Your task to perform on an android device: turn on sleep mode Image 0: 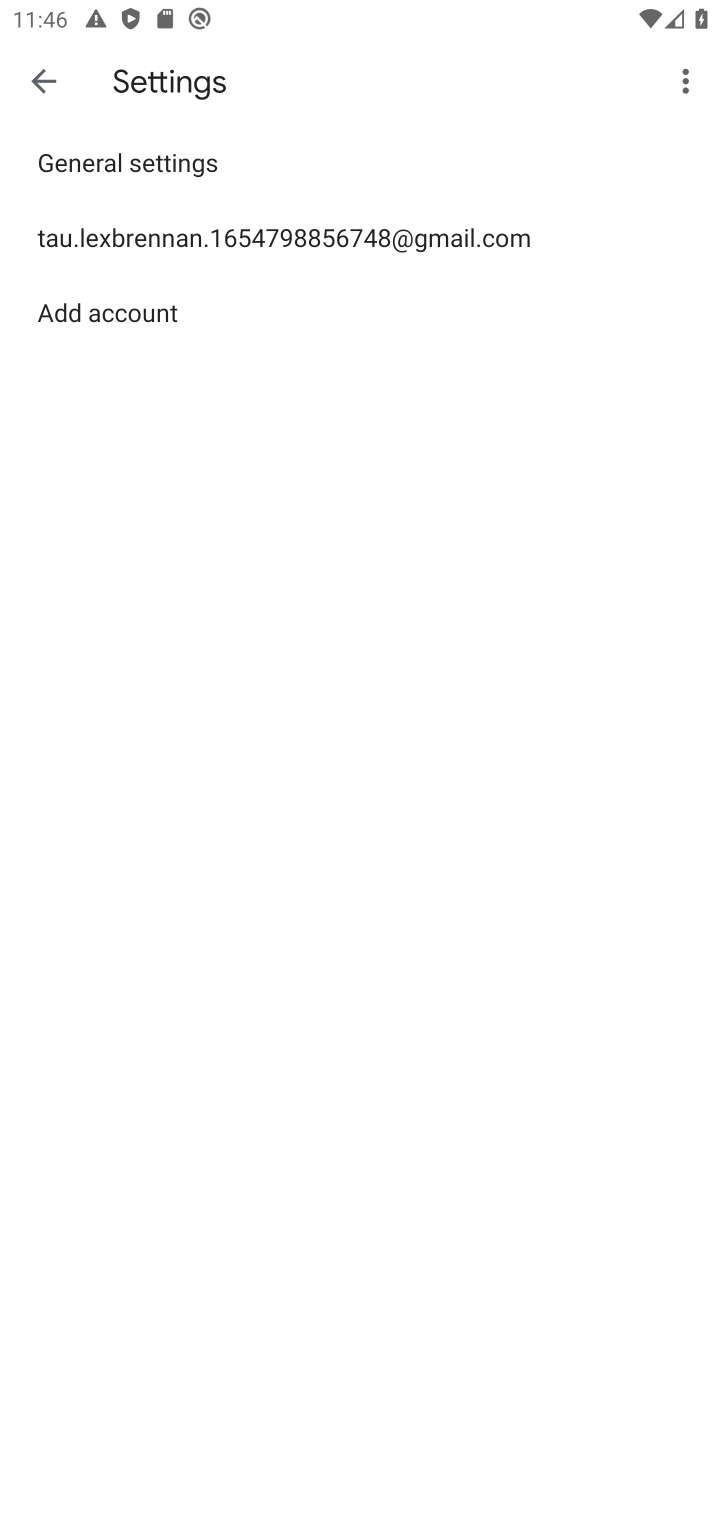
Step 0: press home button
Your task to perform on an android device: turn on sleep mode Image 1: 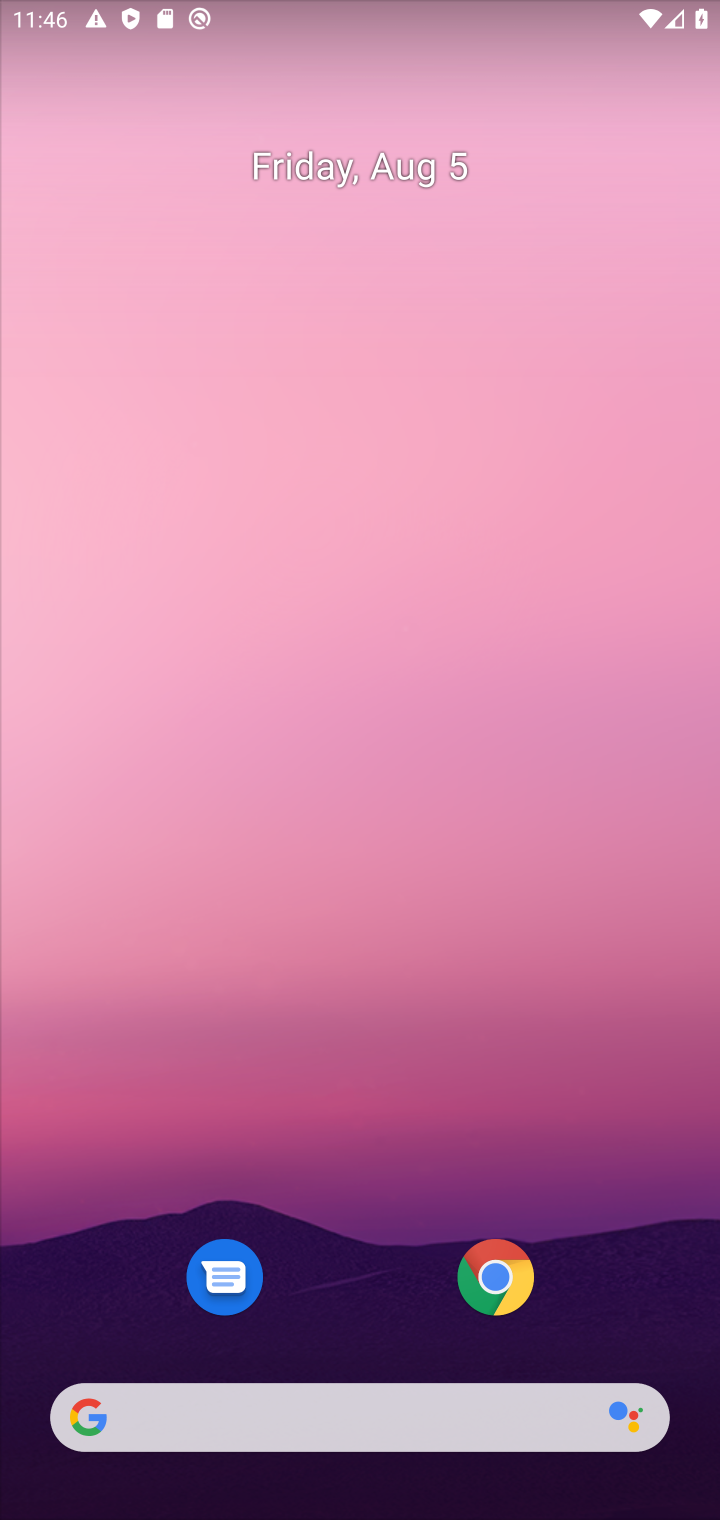
Step 1: drag from (347, 1428) to (656, 319)
Your task to perform on an android device: turn on sleep mode Image 2: 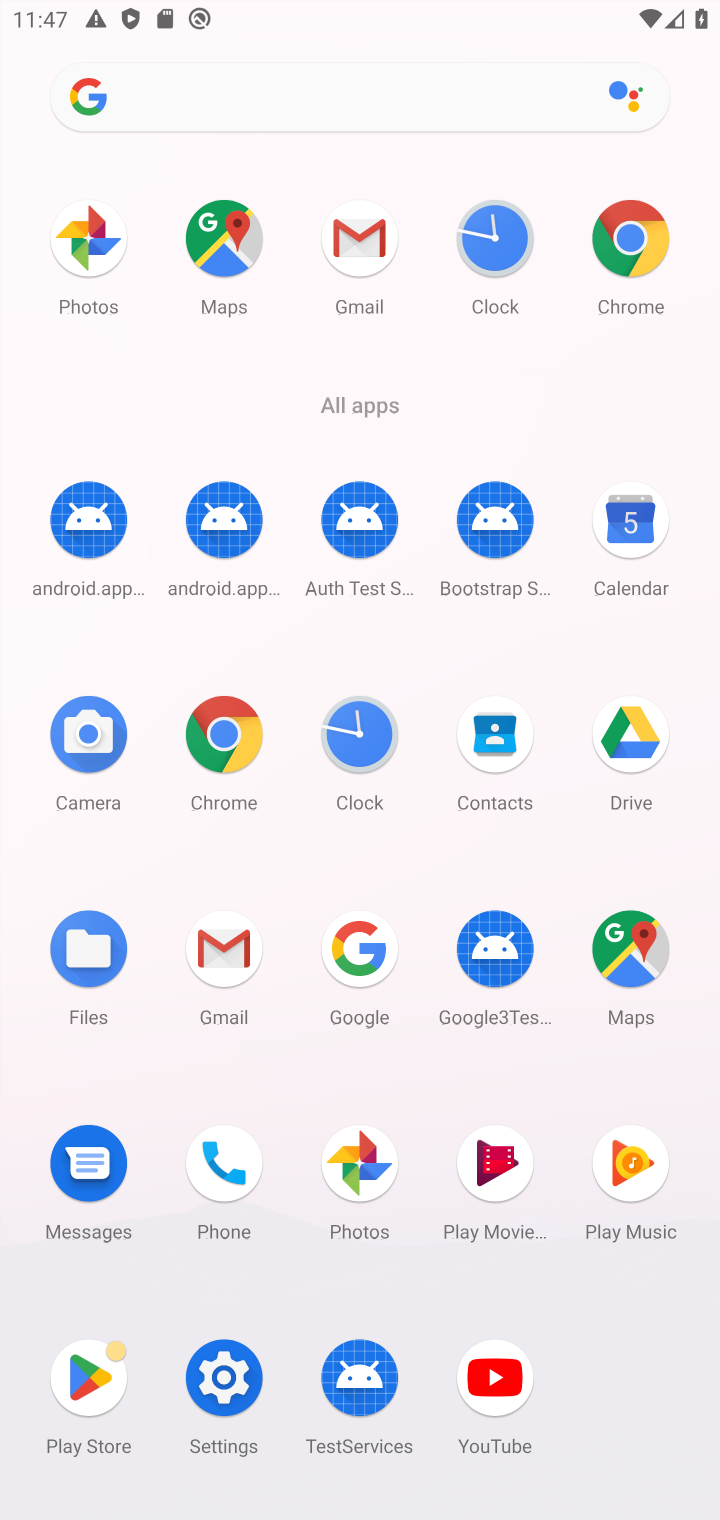
Step 2: click (213, 1376)
Your task to perform on an android device: turn on sleep mode Image 3: 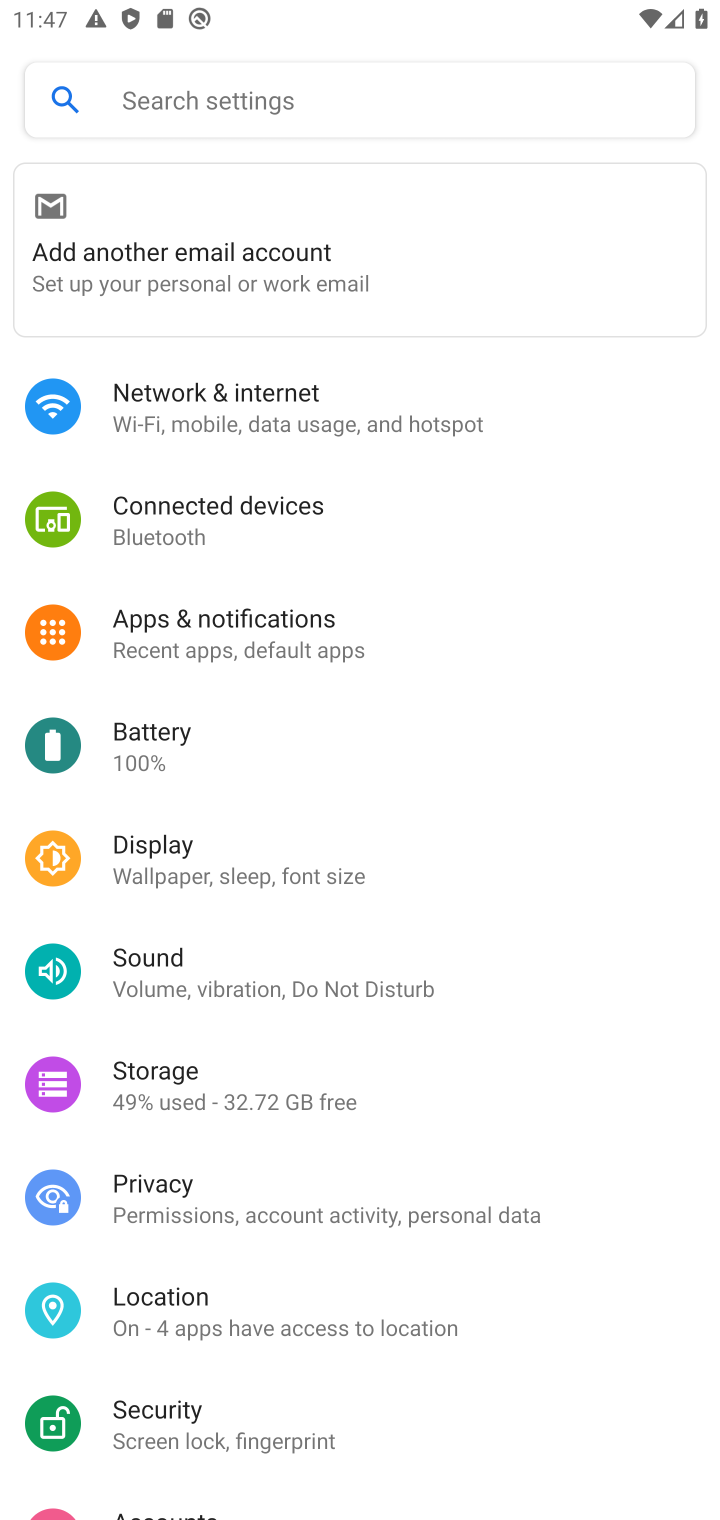
Step 3: click (248, 859)
Your task to perform on an android device: turn on sleep mode Image 4: 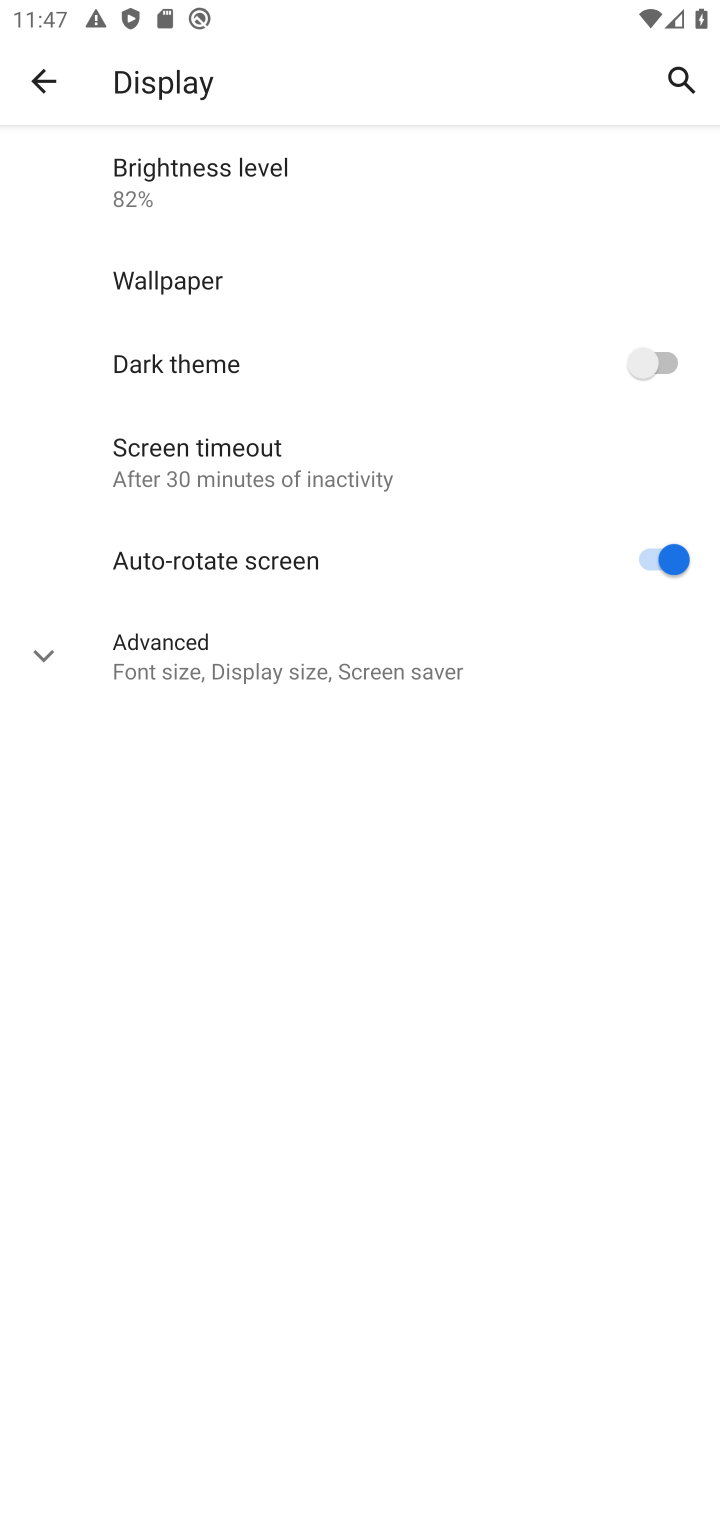
Step 4: task complete